Your task to perform on an android device: remove spam from my inbox in the gmail app Image 0: 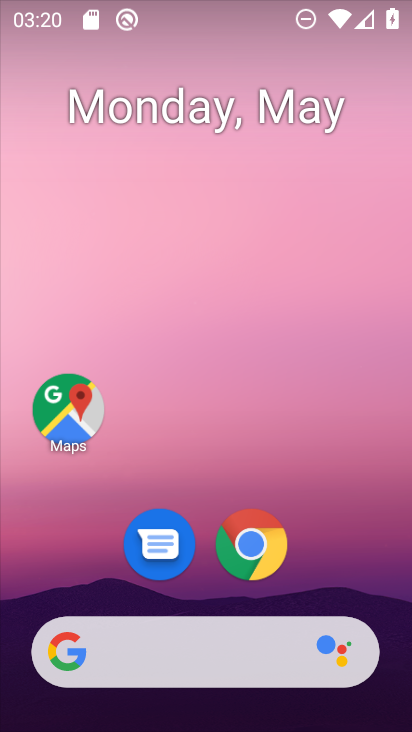
Step 0: drag from (381, 592) to (361, 198)
Your task to perform on an android device: remove spam from my inbox in the gmail app Image 1: 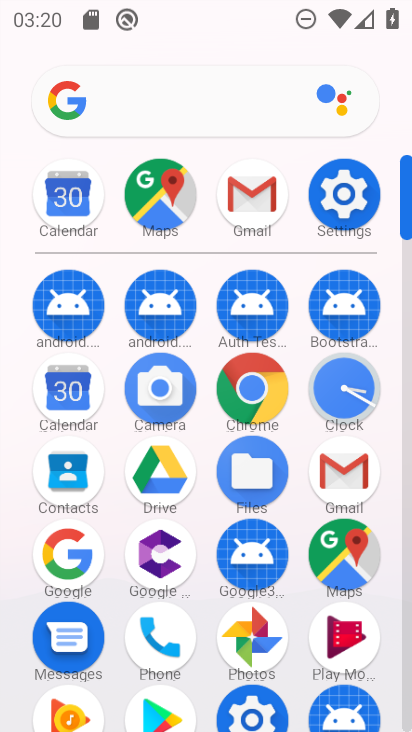
Step 1: click (367, 475)
Your task to perform on an android device: remove spam from my inbox in the gmail app Image 2: 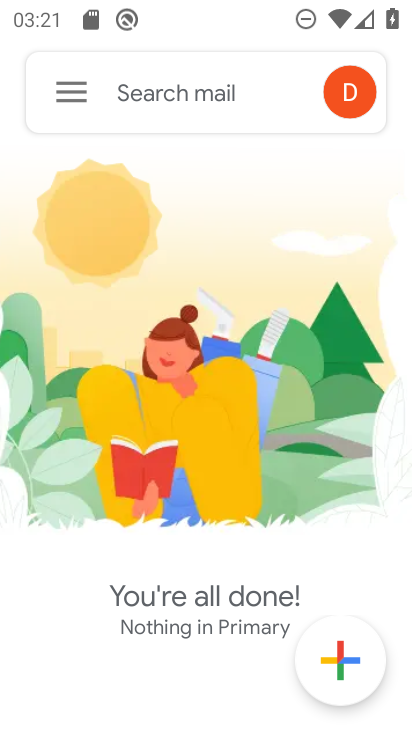
Step 2: click (75, 103)
Your task to perform on an android device: remove spam from my inbox in the gmail app Image 3: 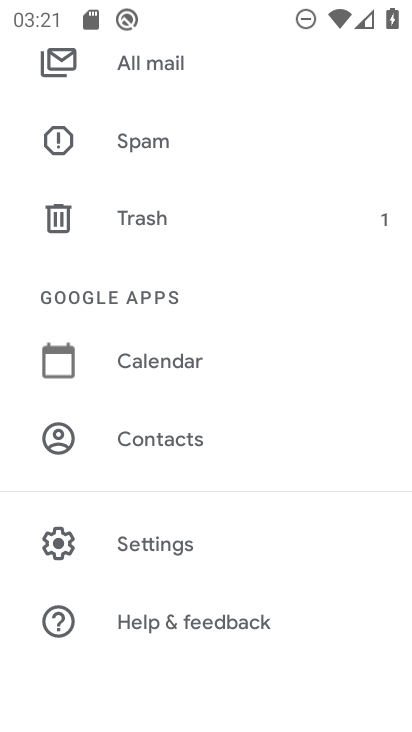
Step 3: drag from (315, 227) to (305, 367)
Your task to perform on an android device: remove spam from my inbox in the gmail app Image 4: 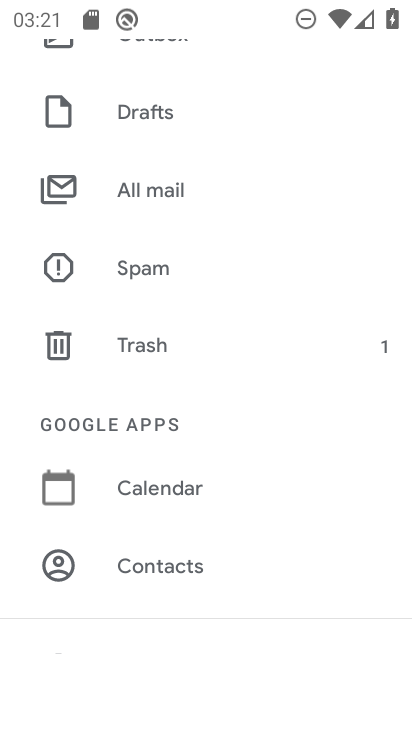
Step 4: drag from (305, 208) to (302, 439)
Your task to perform on an android device: remove spam from my inbox in the gmail app Image 5: 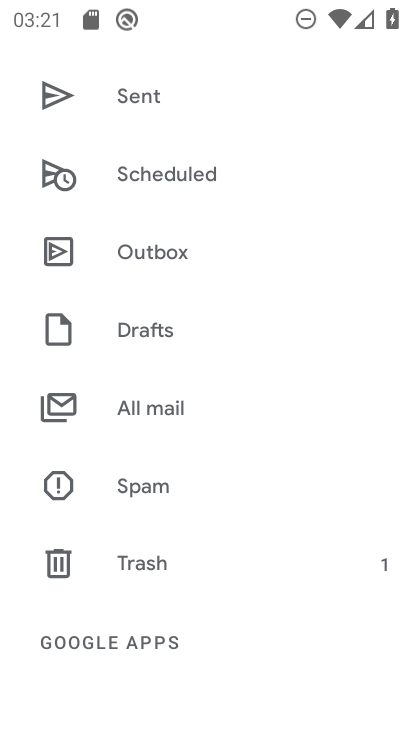
Step 5: drag from (294, 174) to (315, 381)
Your task to perform on an android device: remove spam from my inbox in the gmail app Image 6: 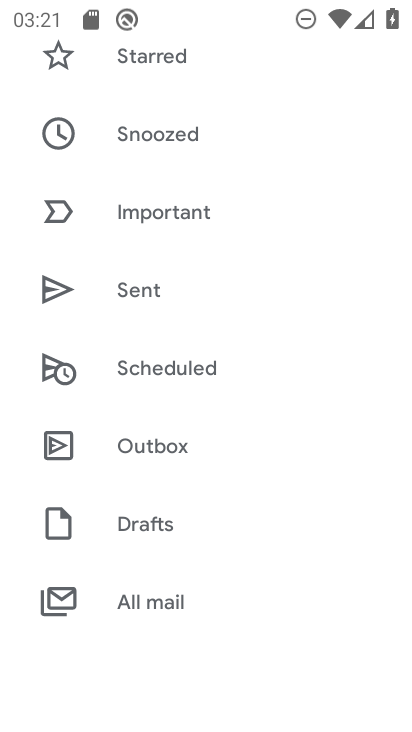
Step 6: drag from (284, 170) to (307, 319)
Your task to perform on an android device: remove spam from my inbox in the gmail app Image 7: 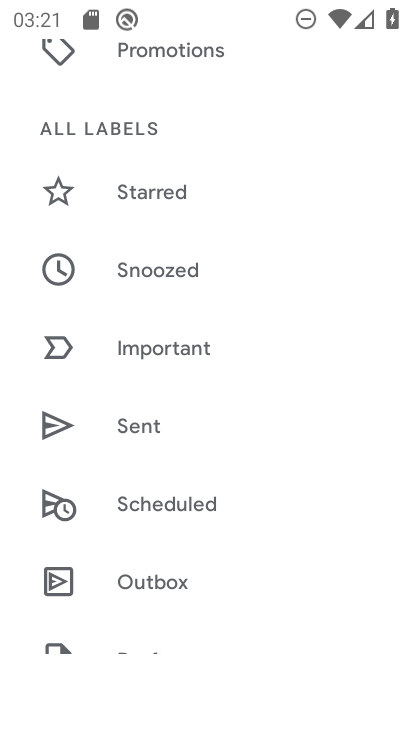
Step 7: drag from (307, 197) to (291, 354)
Your task to perform on an android device: remove spam from my inbox in the gmail app Image 8: 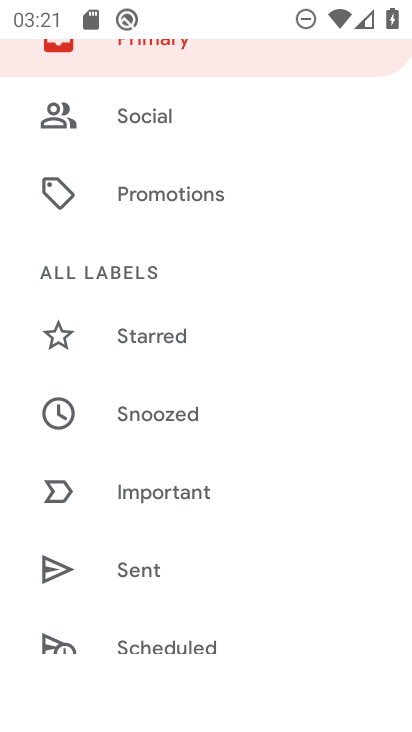
Step 8: drag from (267, 192) to (276, 366)
Your task to perform on an android device: remove spam from my inbox in the gmail app Image 9: 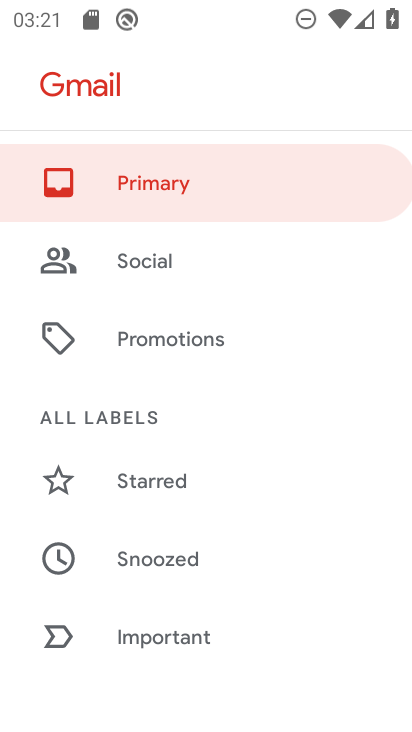
Step 9: drag from (264, 432) to (292, 304)
Your task to perform on an android device: remove spam from my inbox in the gmail app Image 10: 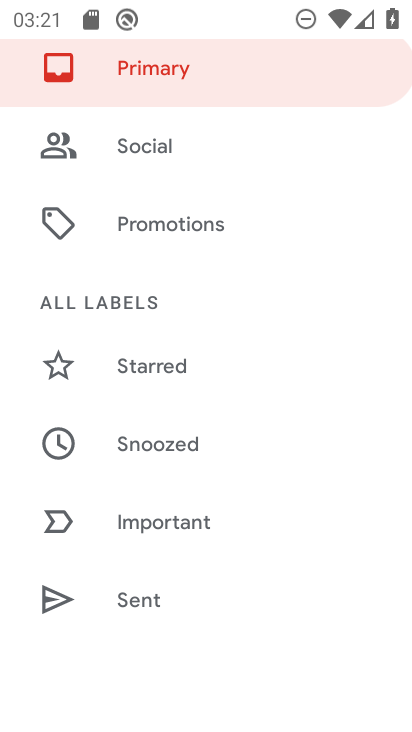
Step 10: drag from (292, 439) to (303, 307)
Your task to perform on an android device: remove spam from my inbox in the gmail app Image 11: 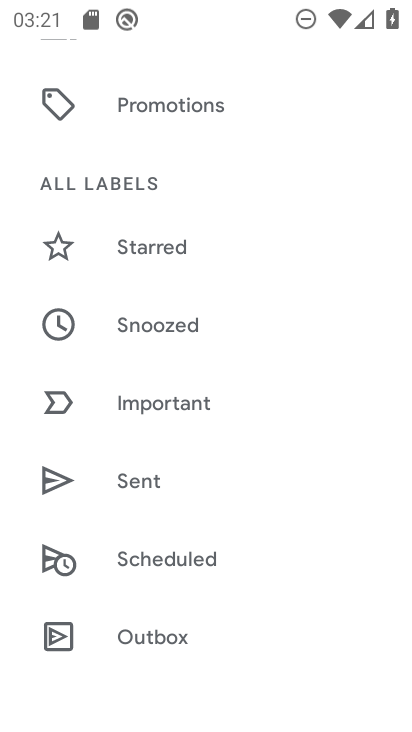
Step 11: drag from (283, 449) to (289, 292)
Your task to perform on an android device: remove spam from my inbox in the gmail app Image 12: 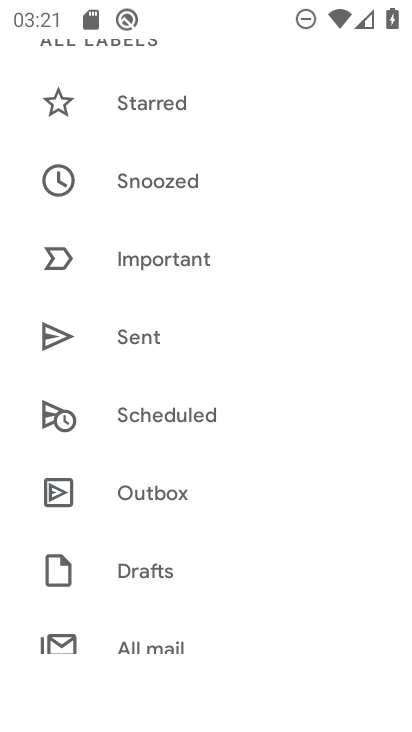
Step 12: drag from (299, 437) to (291, 247)
Your task to perform on an android device: remove spam from my inbox in the gmail app Image 13: 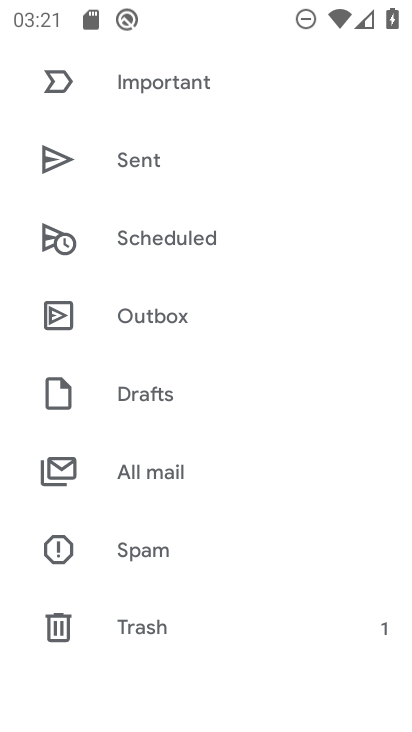
Step 13: drag from (294, 427) to (265, 276)
Your task to perform on an android device: remove spam from my inbox in the gmail app Image 14: 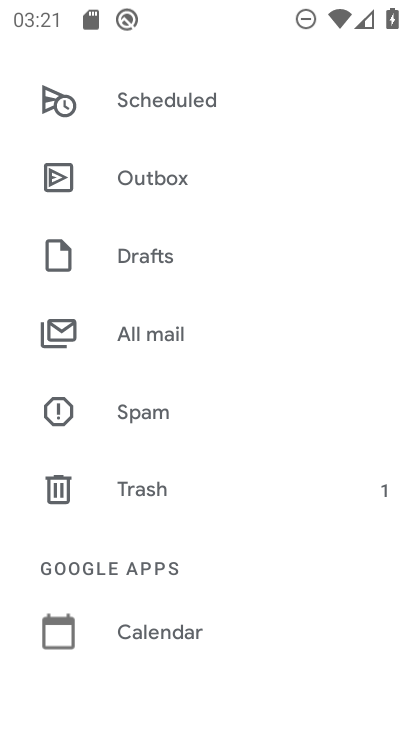
Step 14: drag from (261, 506) to (267, 320)
Your task to perform on an android device: remove spam from my inbox in the gmail app Image 15: 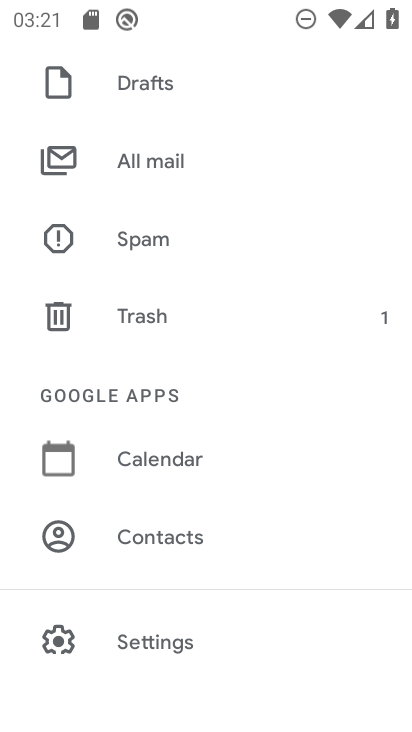
Step 15: click (161, 245)
Your task to perform on an android device: remove spam from my inbox in the gmail app Image 16: 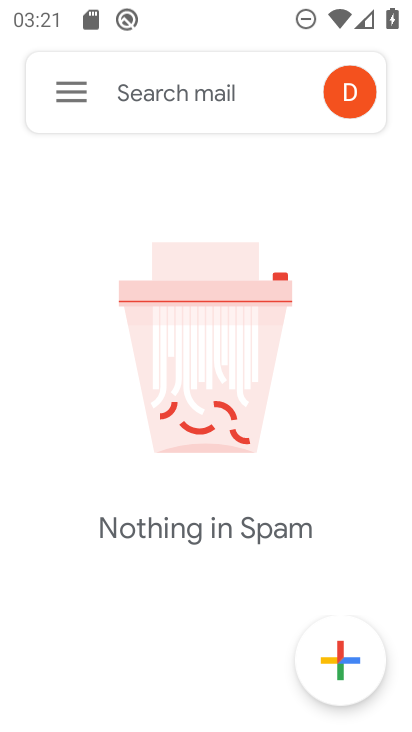
Step 16: task complete